Your task to perform on an android device: change timer sound Image 0: 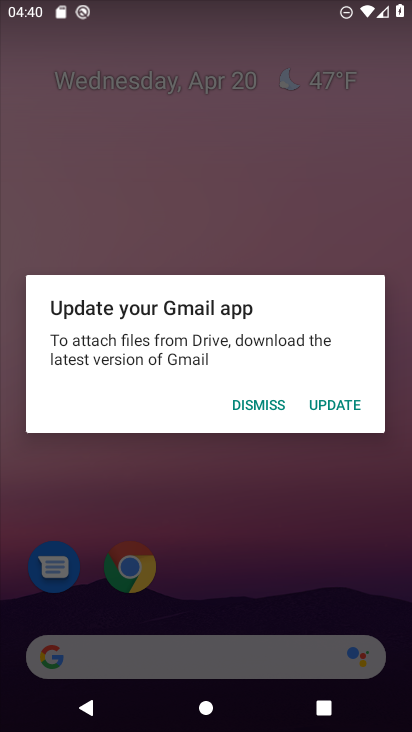
Step 0: press home button
Your task to perform on an android device: change timer sound Image 1: 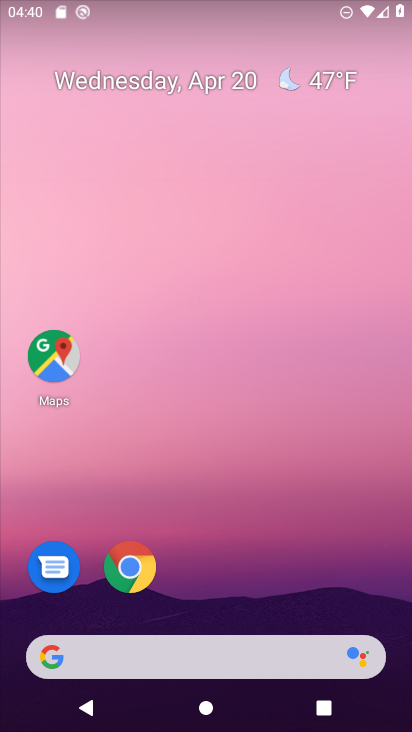
Step 1: drag from (215, 610) to (146, 177)
Your task to perform on an android device: change timer sound Image 2: 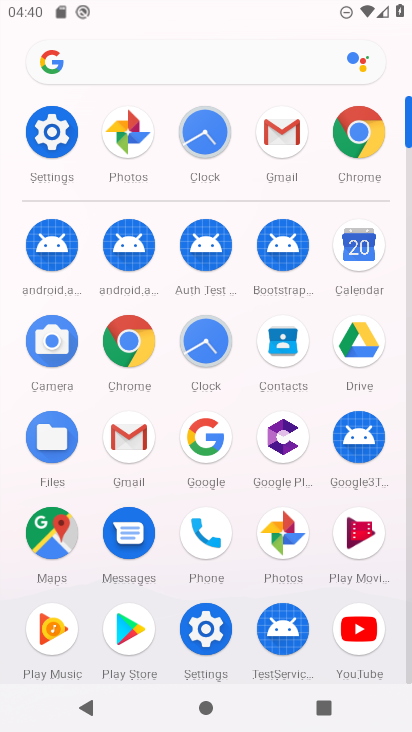
Step 2: click (214, 130)
Your task to perform on an android device: change timer sound Image 3: 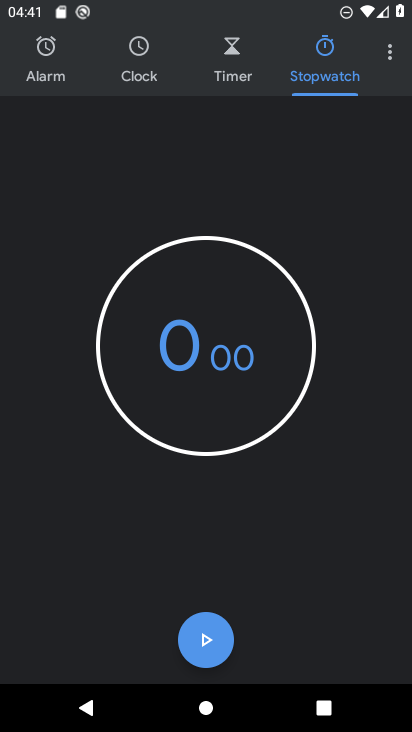
Step 3: click (380, 60)
Your task to perform on an android device: change timer sound Image 4: 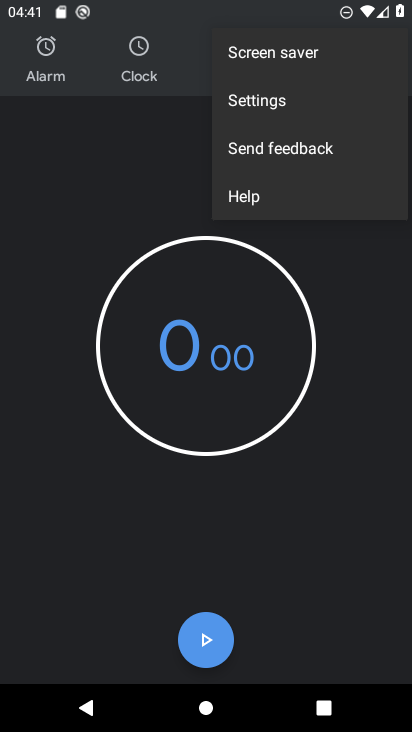
Step 4: click (307, 90)
Your task to perform on an android device: change timer sound Image 5: 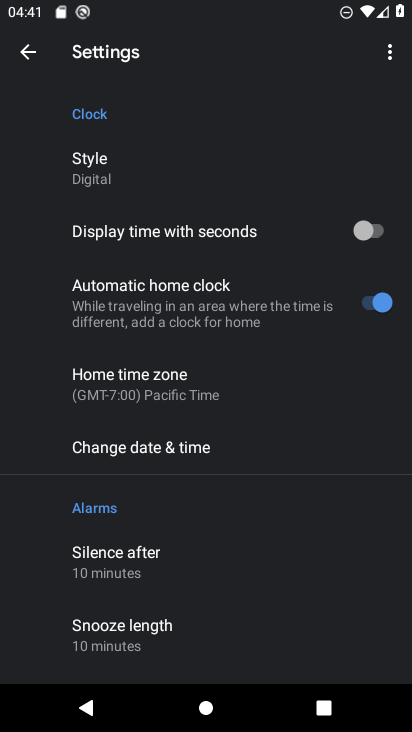
Step 5: drag from (252, 565) to (184, 237)
Your task to perform on an android device: change timer sound Image 6: 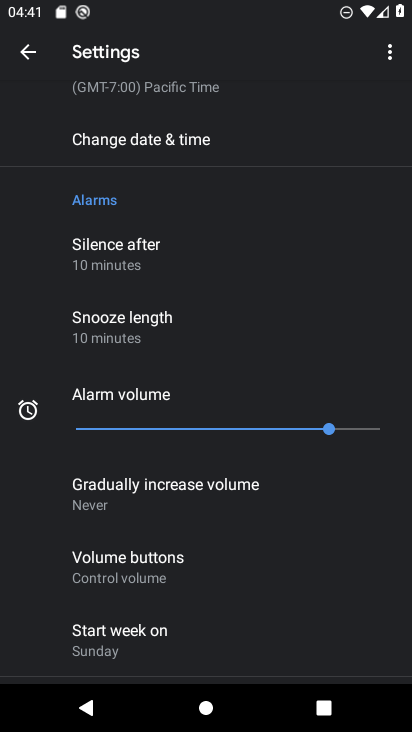
Step 6: drag from (179, 532) to (163, 151)
Your task to perform on an android device: change timer sound Image 7: 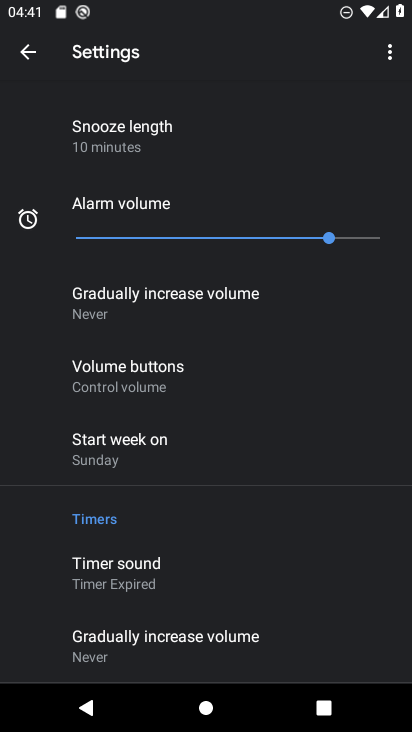
Step 7: click (168, 589)
Your task to perform on an android device: change timer sound Image 8: 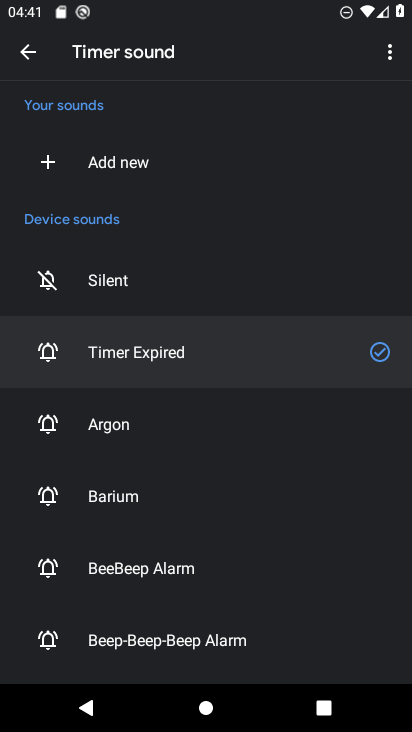
Step 8: click (119, 507)
Your task to perform on an android device: change timer sound Image 9: 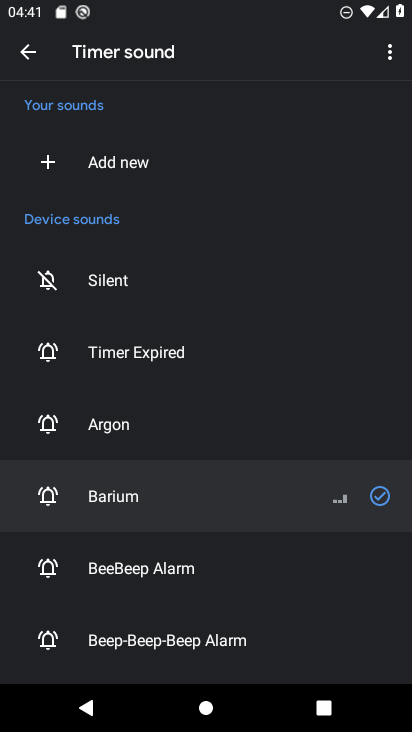
Step 9: task complete